Your task to perform on an android device: Open display settings Image 0: 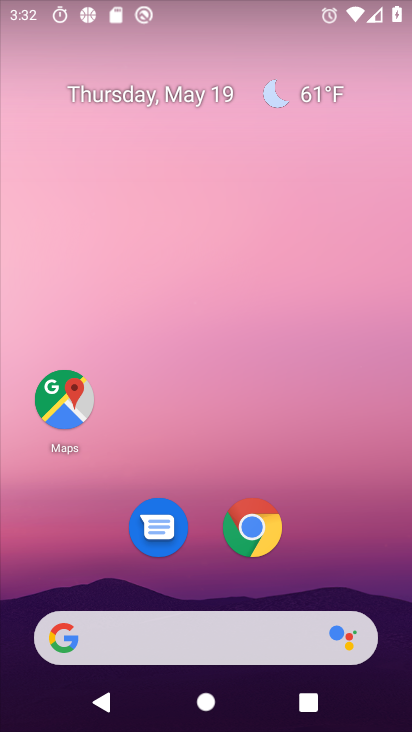
Step 0: drag from (203, 550) to (298, 56)
Your task to perform on an android device: Open display settings Image 1: 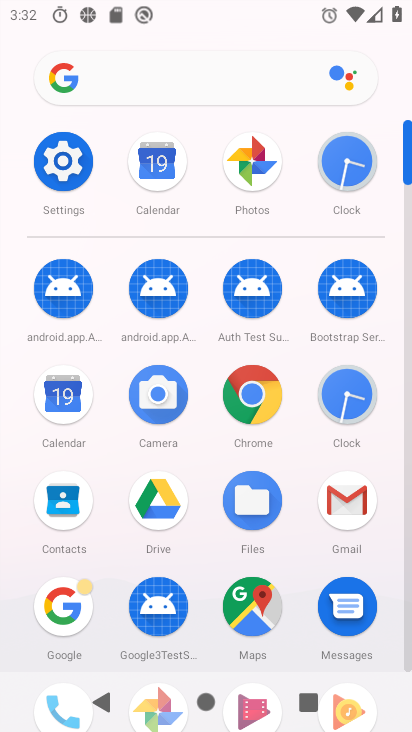
Step 1: click (76, 162)
Your task to perform on an android device: Open display settings Image 2: 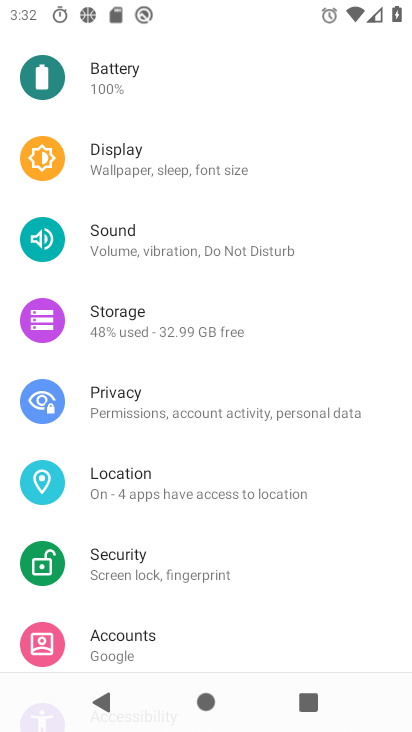
Step 2: click (109, 160)
Your task to perform on an android device: Open display settings Image 3: 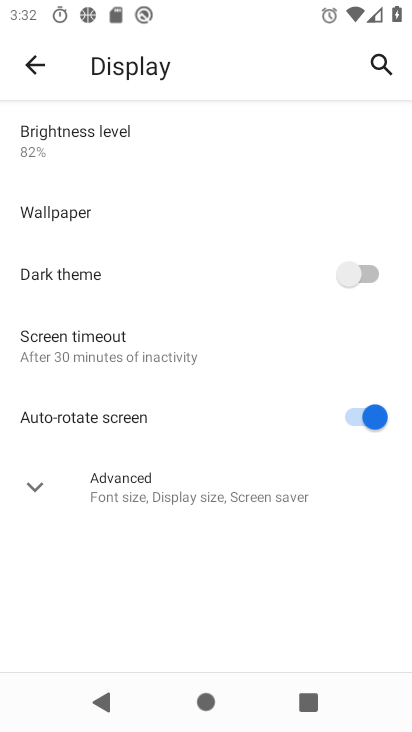
Step 3: task complete